Your task to perform on an android device: open chrome and create a bookmark for the current page Image 0: 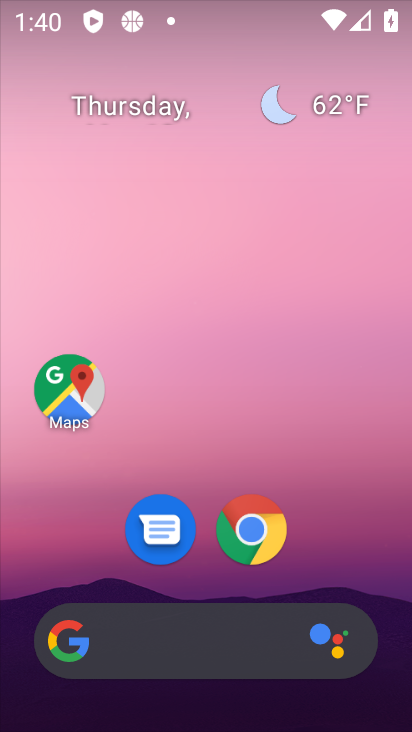
Step 0: click (257, 528)
Your task to perform on an android device: open chrome and create a bookmark for the current page Image 1: 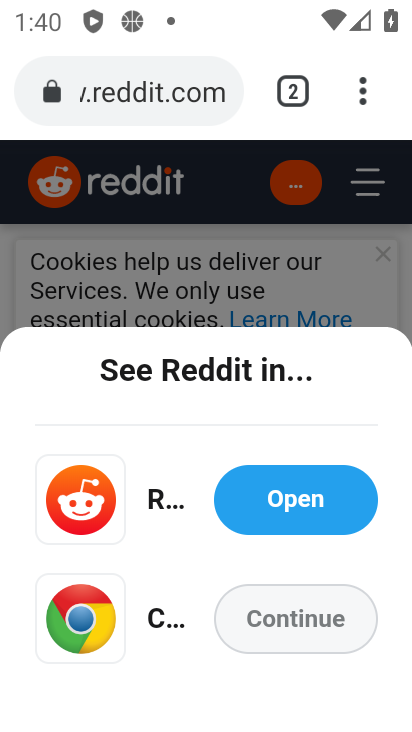
Step 1: click (361, 91)
Your task to perform on an android device: open chrome and create a bookmark for the current page Image 2: 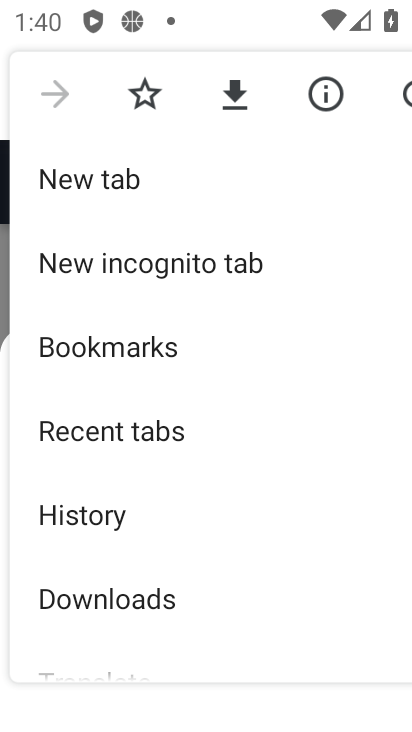
Step 2: click (154, 92)
Your task to perform on an android device: open chrome and create a bookmark for the current page Image 3: 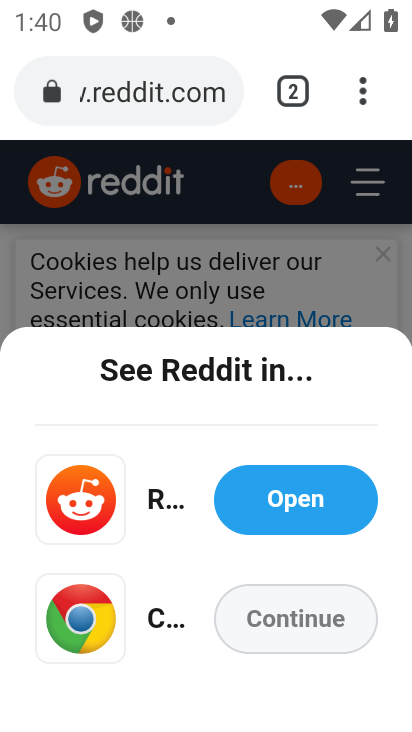
Step 3: task complete